Your task to perform on an android device: Open CNN.com Image 0: 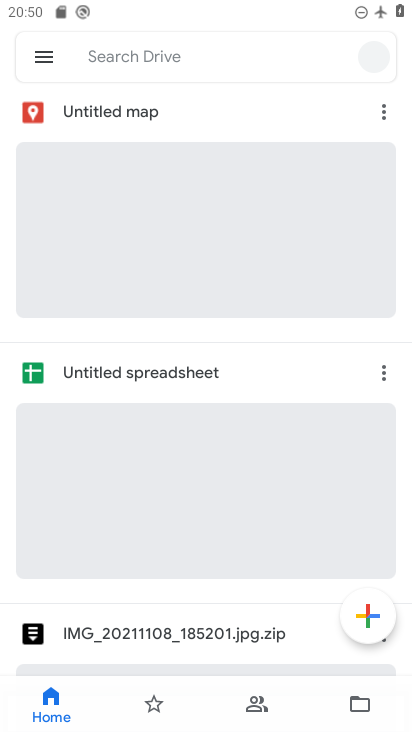
Step 0: press home button
Your task to perform on an android device: Open CNN.com Image 1: 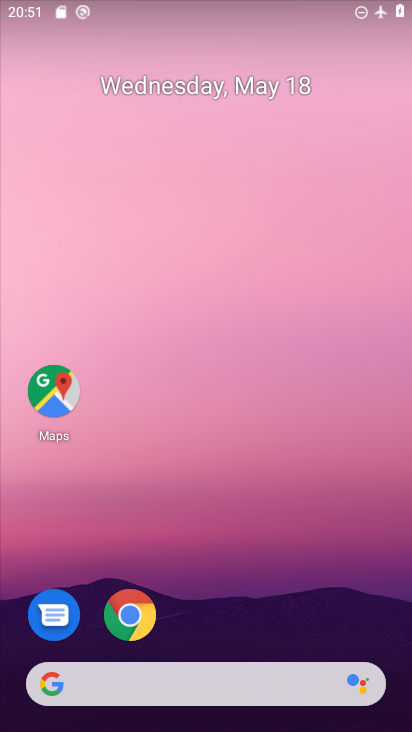
Step 1: click (138, 628)
Your task to perform on an android device: Open CNN.com Image 2: 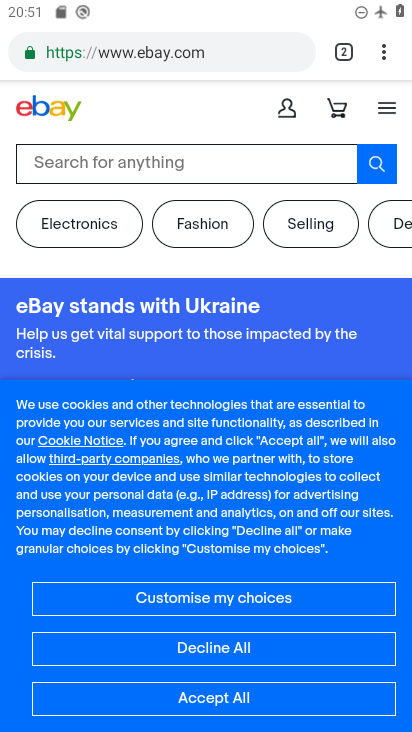
Step 2: click (140, 52)
Your task to perform on an android device: Open CNN.com Image 3: 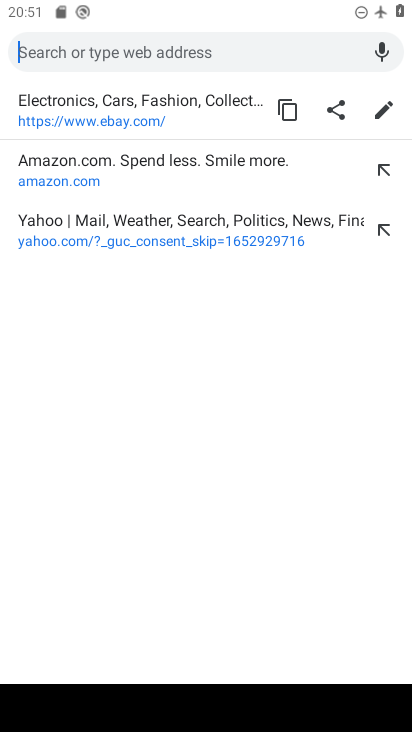
Step 3: type "cnn.com"
Your task to perform on an android device: Open CNN.com Image 4: 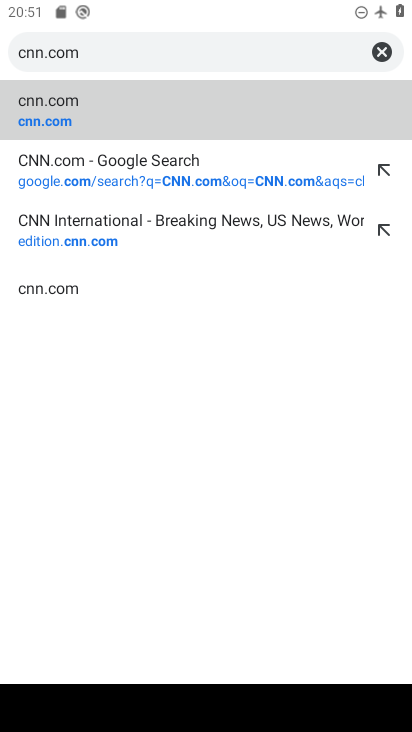
Step 4: click (60, 114)
Your task to perform on an android device: Open CNN.com Image 5: 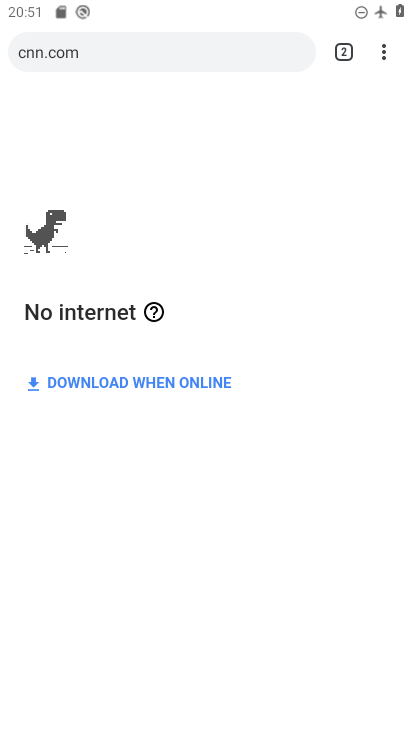
Step 5: task complete